Your task to perform on an android device: read, delete, or share a saved page in the chrome app Image 0: 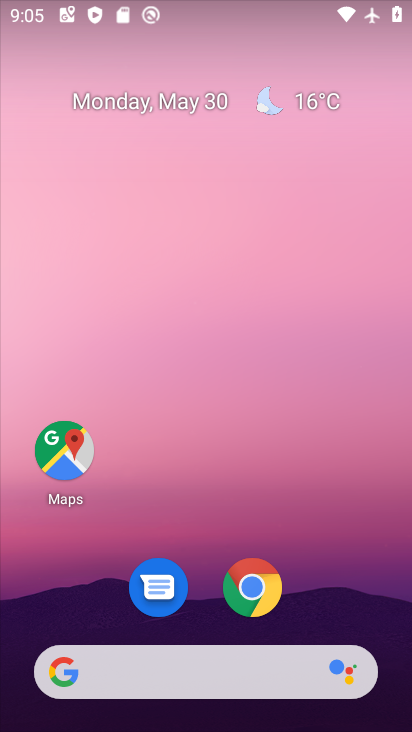
Step 0: click (265, 596)
Your task to perform on an android device: read, delete, or share a saved page in the chrome app Image 1: 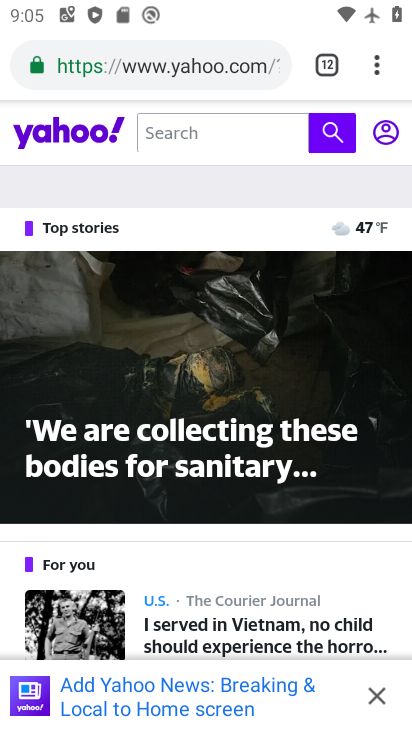
Step 1: drag from (377, 65) to (206, 428)
Your task to perform on an android device: read, delete, or share a saved page in the chrome app Image 2: 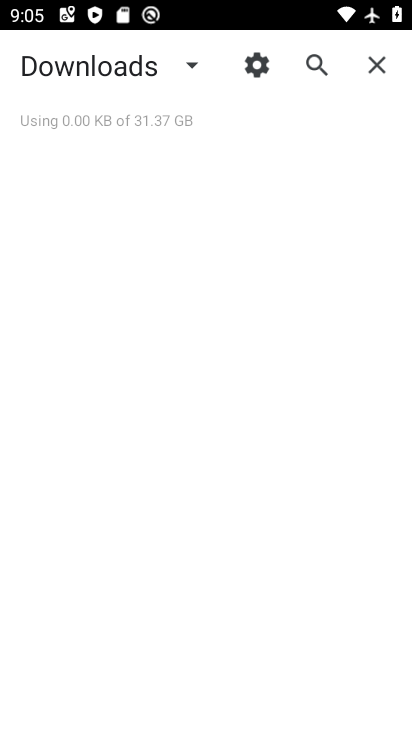
Step 2: click (188, 65)
Your task to perform on an android device: read, delete, or share a saved page in the chrome app Image 3: 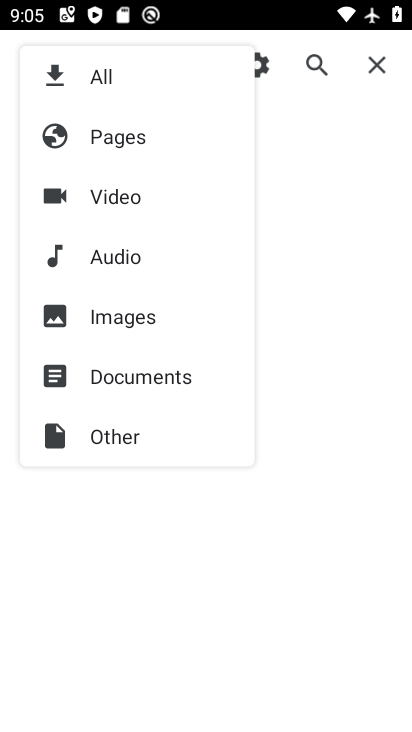
Step 3: click (133, 147)
Your task to perform on an android device: read, delete, or share a saved page in the chrome app Image 4: 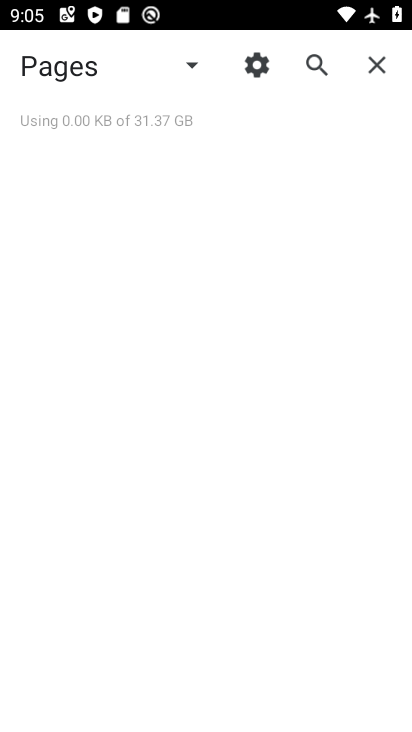
Step 4: task complete